Your task to perform on an android device: toggle pop-ups in chrome Image 0: 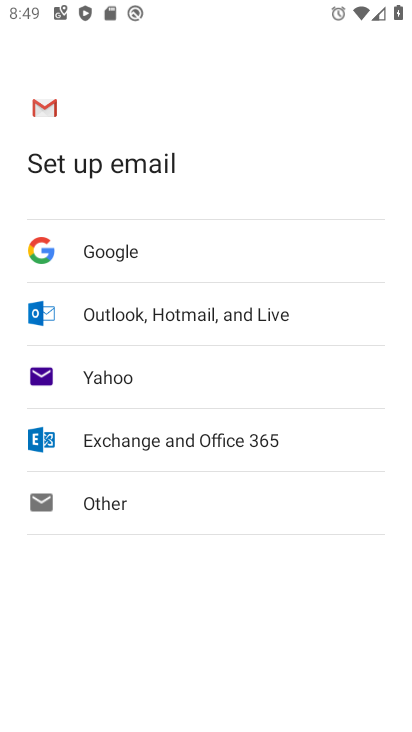
Step 0: press home button
Your task to perform on an android device: toggle pop-ups in chrome Image 1: 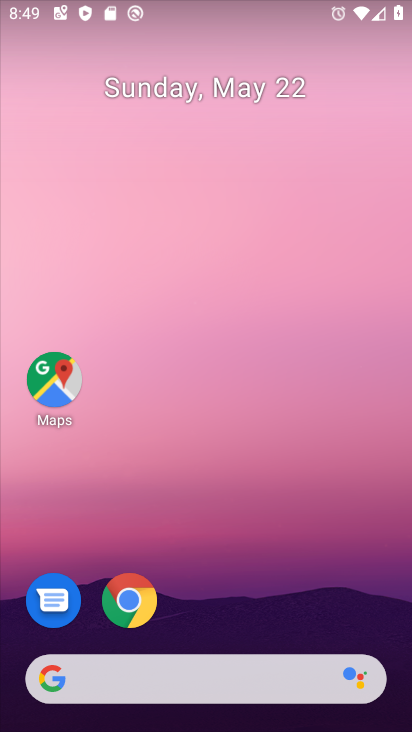
Step 1: click (143, 605)
Your task to perform on an android device: toggle pop-ups in chrome Image 2: 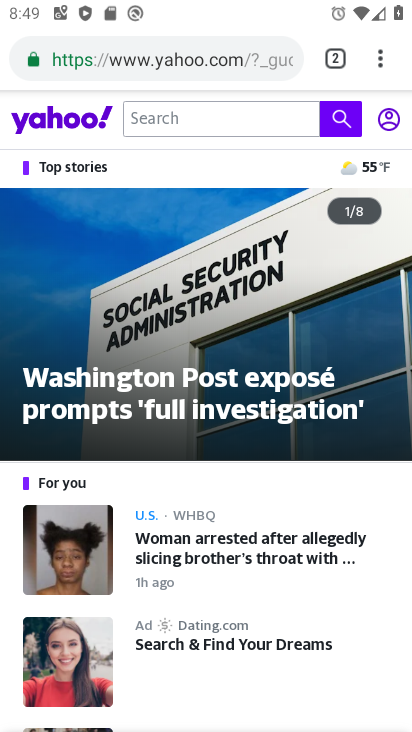
Step 2: click (383, 68)
Your task to perform on an android device: toggle pop-ups in chrome Image 3: 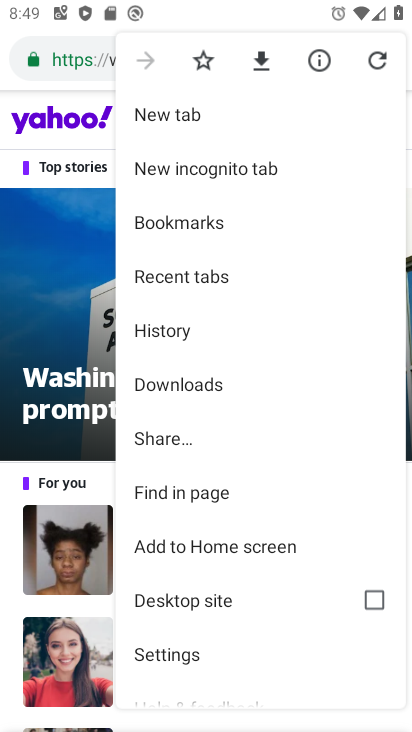
Step 3: drag from (260, 492) to (262, 285)
Your task to perform on an android device: toggle pop-ups in chrome Image 4: 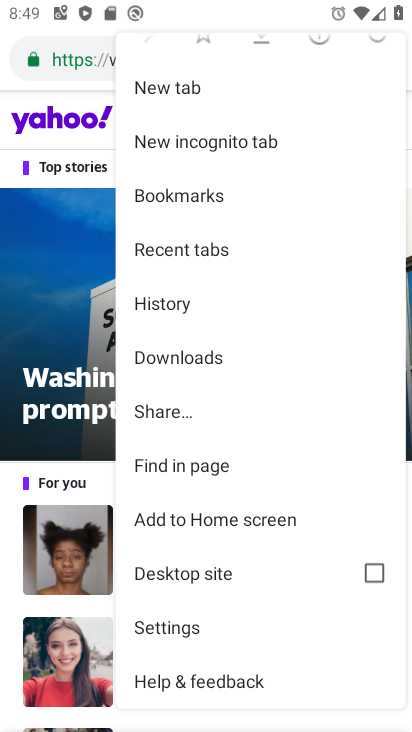
Step 4: drag from (208, 533) to (239, 268)
Your task to perform on an android device: toggle pop-ups in chrome Image 5: 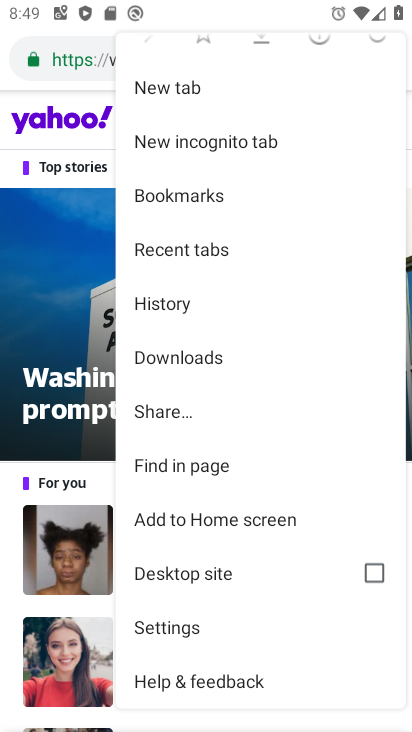
Step 5: click (215, 633)
Your task to perform on an android device: toggle pop-ups in chrome Image 6: 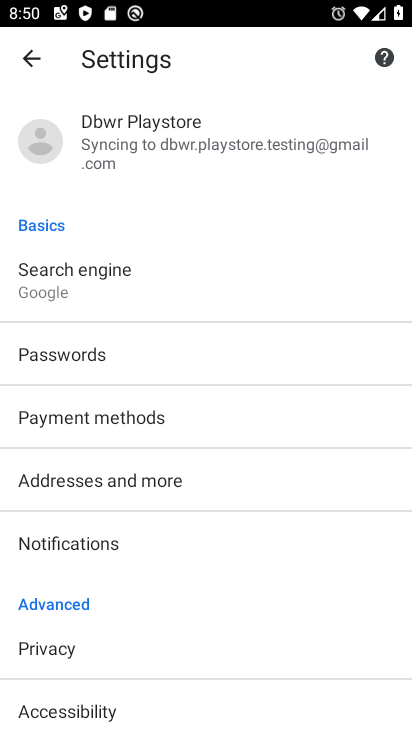
Step 6: drag from (193, 619) to (221, 337)
Your task to perform on an android device: toggle pop-ups in chrome Image 7: 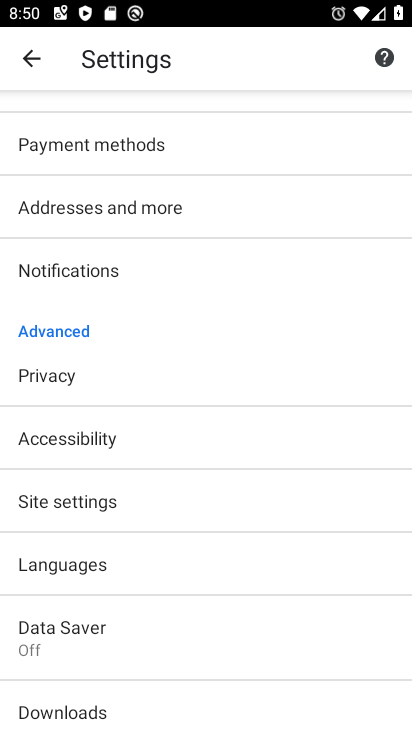
Step 7: click (148, 504)
Your task to perform on an android device: toggle pop-ups in chrome Image 8: 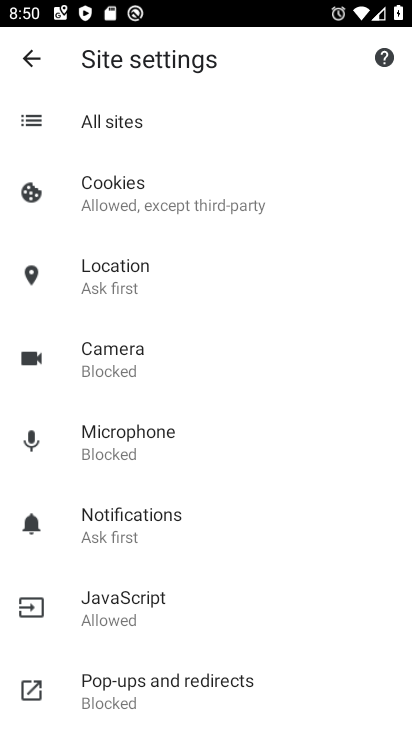
Step 8: drag from (207, 548) to (222, 350)
Your task to perform on an android device: toggle pop-ups in chrome Image 9: 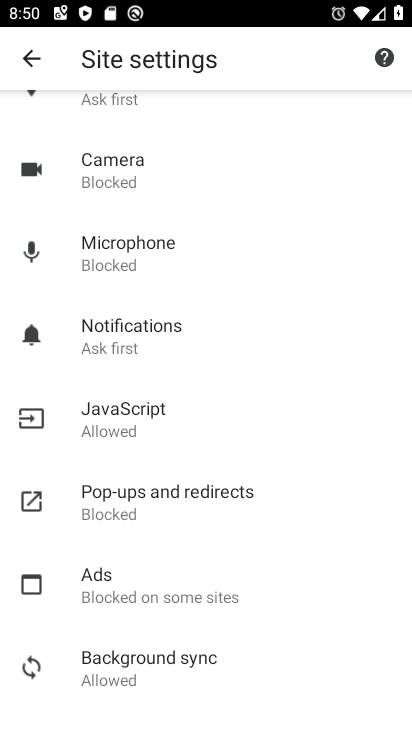
Step 9: click (208, 511)
Your task to perform on an android device: toggle pop-ups in chrome Image 10: 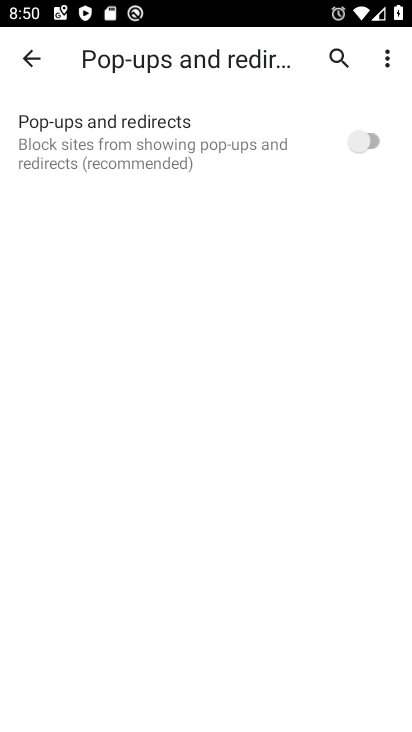
Step 10: click (362, 148)
Your task to perform on an android device: toggle pop-ups in chrome Image 11: 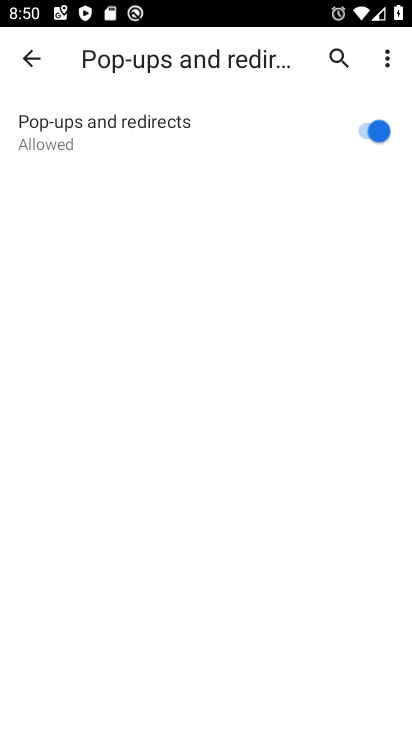
Step 11: task complete